Your task to perform on an android device: open wifi settings Image 0: 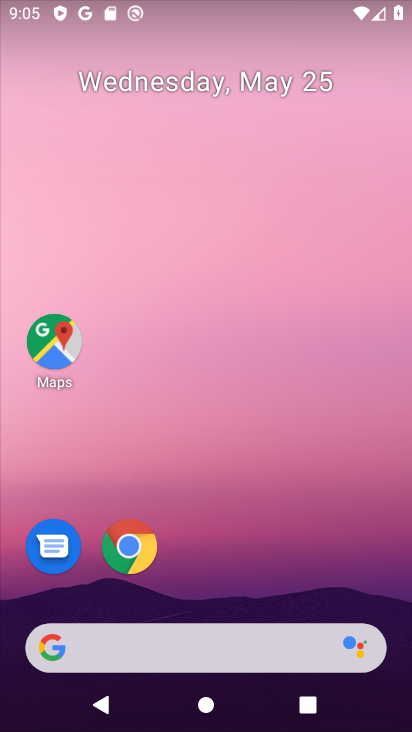
Step 0: drag from (219, 620) to (311, 187)
Your task to perform on an android device: open wifi settings Image 1: 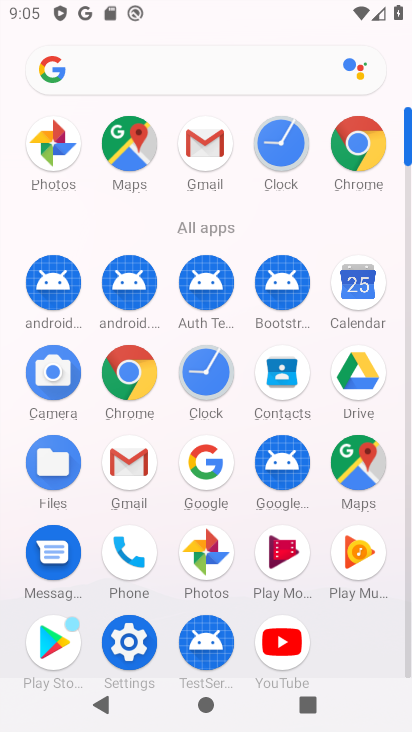
Step 1: click (135, 663)
Your task to perform on an android device: open wifi settings Image 2: 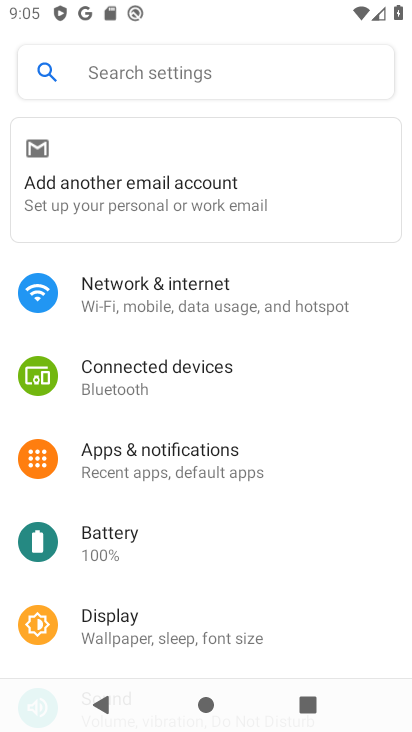
Step 2: click (242, 294)
Your task to perform on an android device: open wifi settings Image 3: 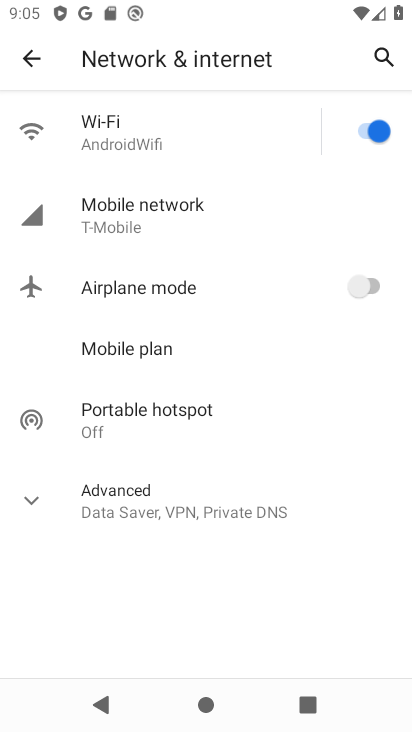
Step 3: click (124, 137)
Your task to perform on an android device: open wifi settings Image 4: 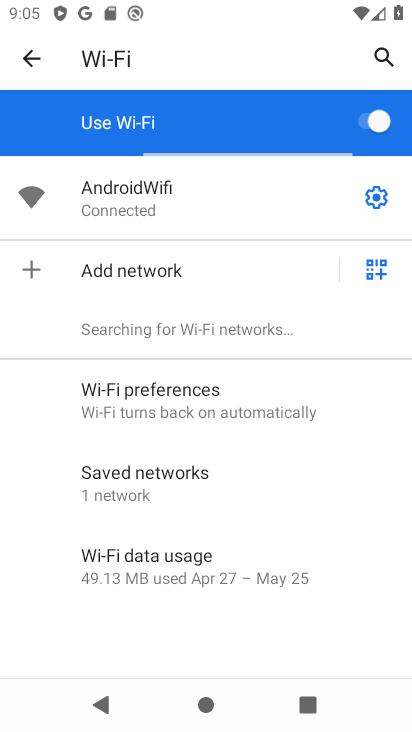
Step 4: task complete